Your task to perform on an android device: Go to display settings Image 0: 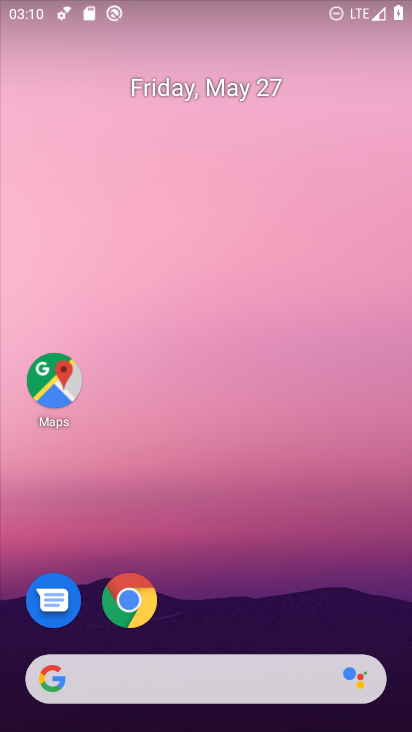
Step 0: drag from (215, 728) to (213, 196)
Your task to perform on an android device: Go to display settings Image 1: 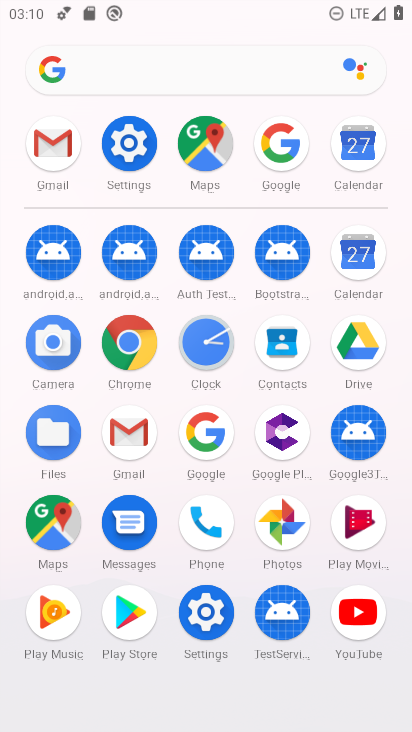
Step 1: click (130, 142)
Your task to perform on an android device: Go to display settings Image 2: 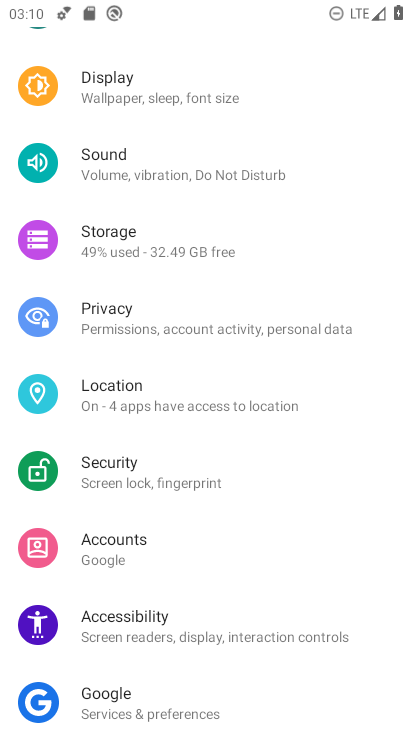
Step 2: click (101, 90)
Your task to perform on an android device: Go to display settings Image 3: 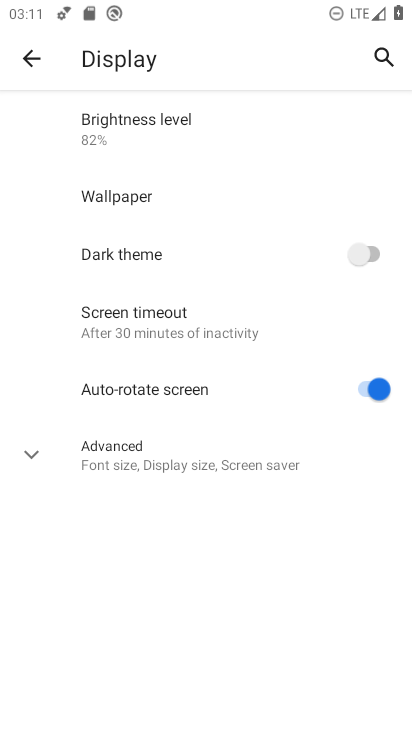
Step 3: task complete